Your task to perform on an android device: Open notification settings Image 0: 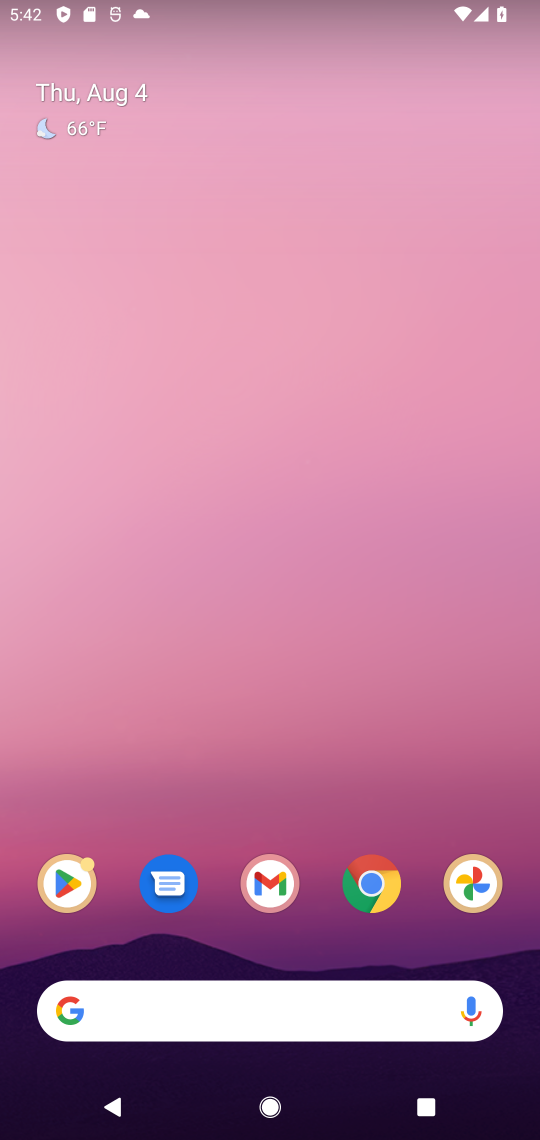
Step 0: drag from (179, 1067) to (450, 36)
Your task to perform on an android device: Open notification settings Image 1: 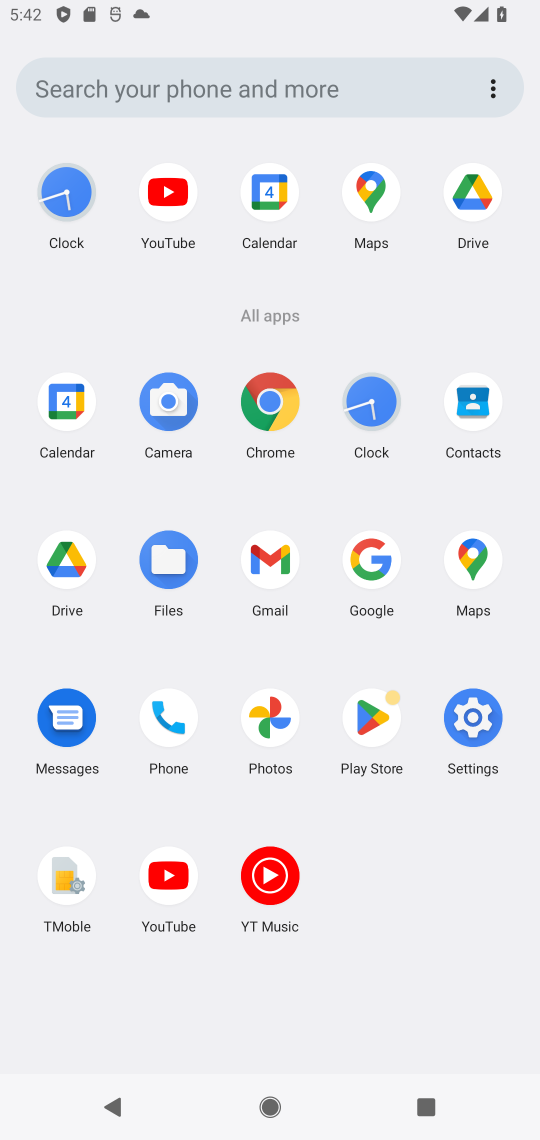
Step 1: click (481, 722)
Your task to perform on an android device: Open notification settings Image 2: 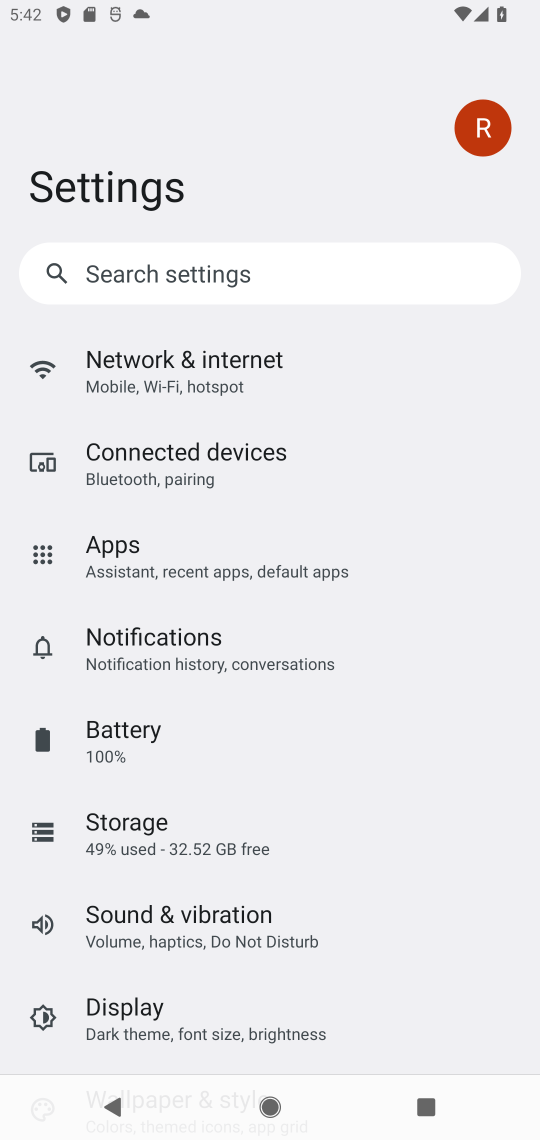
Step 2: click (286, 641)
Your task to perform on an android device: Open notification settings Image 3: 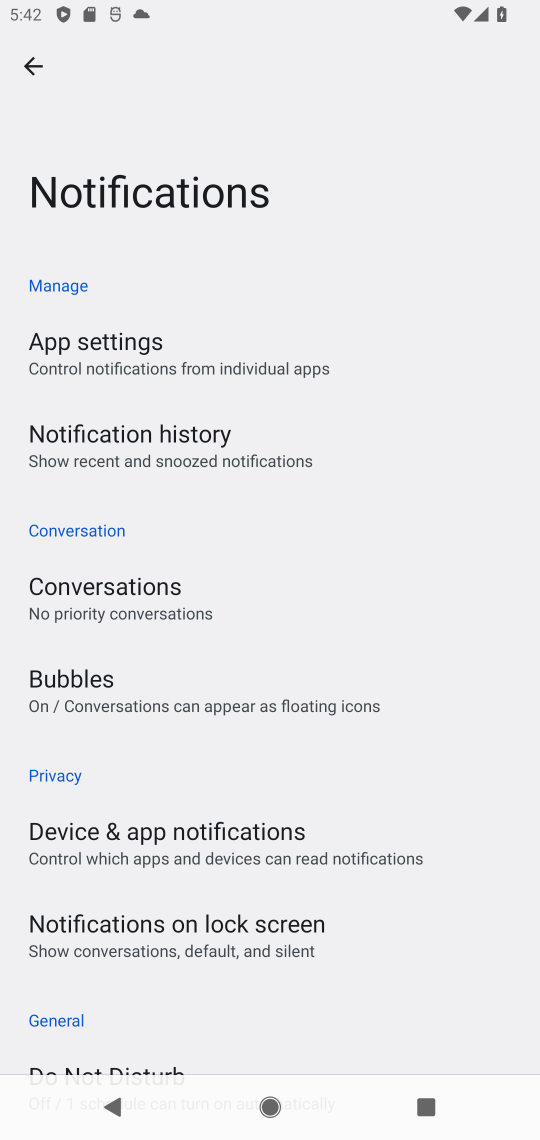
Step 3: task complete